Your task to perform on an android device: What's the news about the US stock market? Image 0: 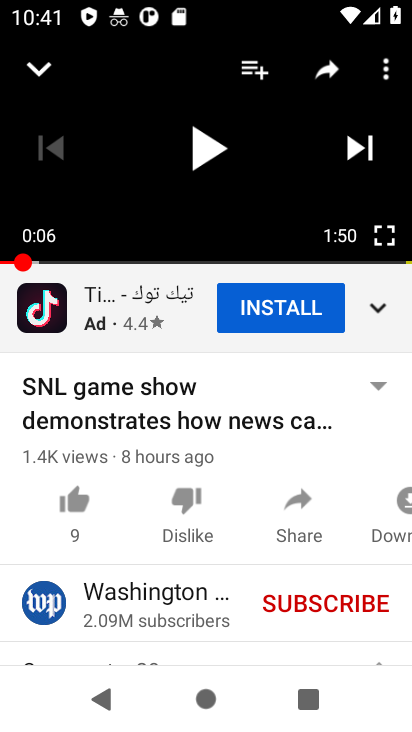
Step 0: press home button
Your task to perform on an android device: What's the news about the US stock market? Image 1: 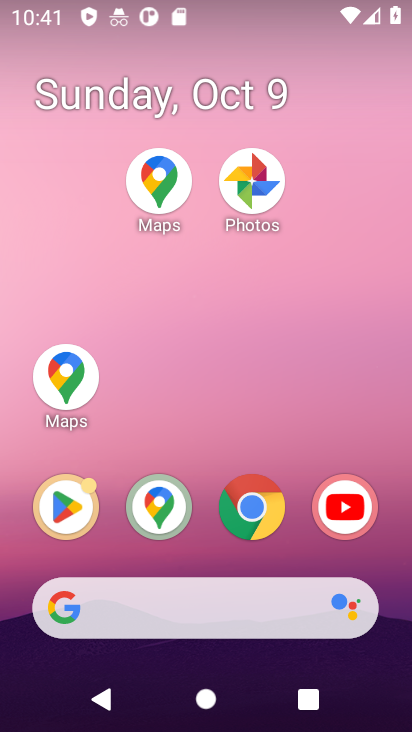
Step 1: drag from (196, 558) to (301, 88)
Your task to perform on an android device: What's the news about the US stock market? Image 2: 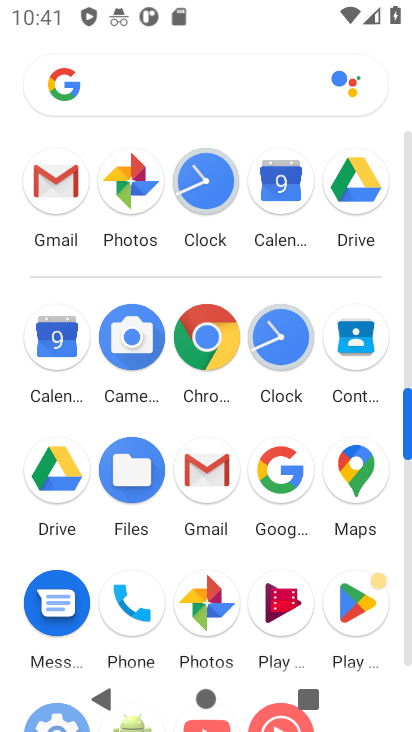
Step 2: click (210, 341)
Your task to perform on an android device: What's the news about the US stock market? Image 3: 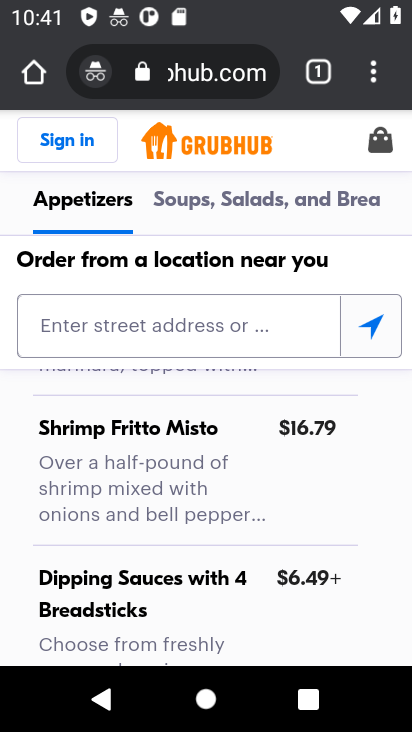
Step 3: type "What's the news about the US stock market?"
Your task to perform on an android device: What's the news about the US stock market? Image 4: 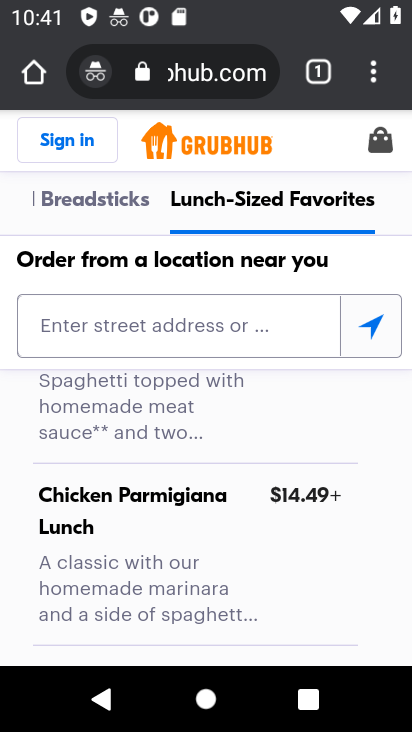
Step 4: click (219, 71)
Your task to perform on an android device: What's the news about the US stock market? Image 5: 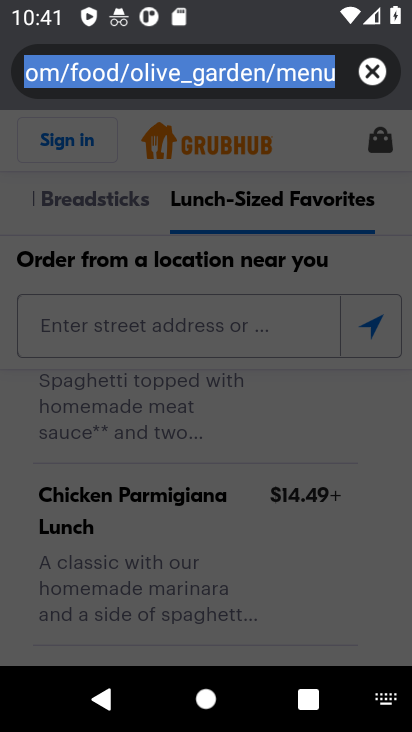
Step 5: type "What's the news about the US stock market?"
Your task to perform on an android device: What's the news about the US stock market? Image 6: 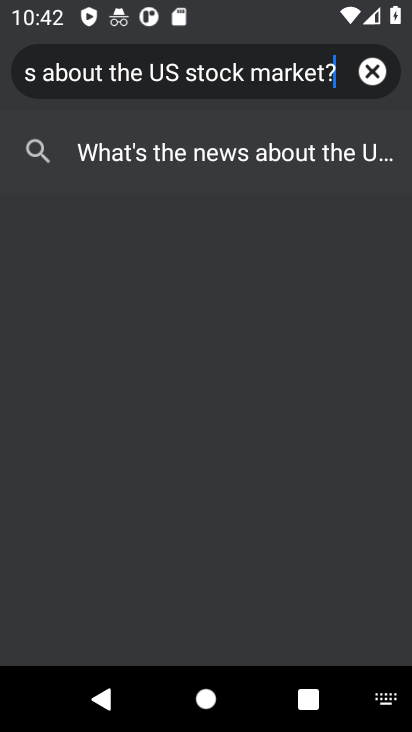
Step 6: press enter
Your task to perform on an android device: What's the news about the US stock market? Image 7: 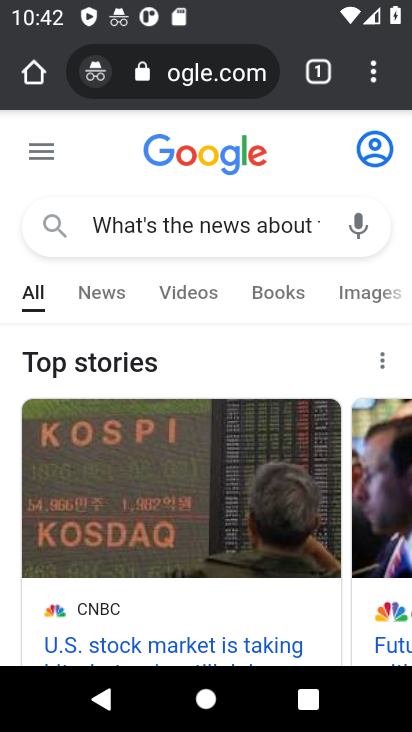
Step 7: drag from (259, 636) to (229, 135)
Your task to perform on an android device: What's the news about the US stock market? Image 8: 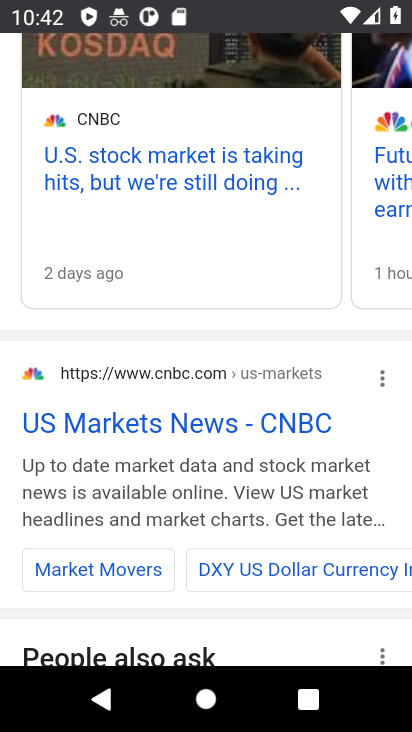
Step 8: click (212, 426)
Your task to perform on an android device: What's the news about the US stock market? Image 9: 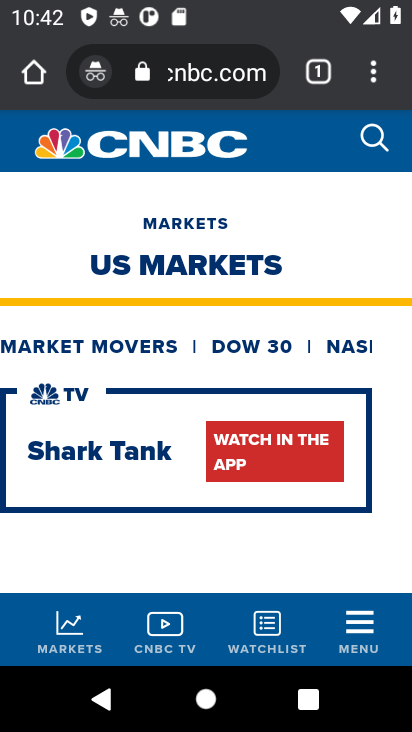
Step 9: task complete